Your task to perform on an android device: turn off data saver in the chrome app Image 0: 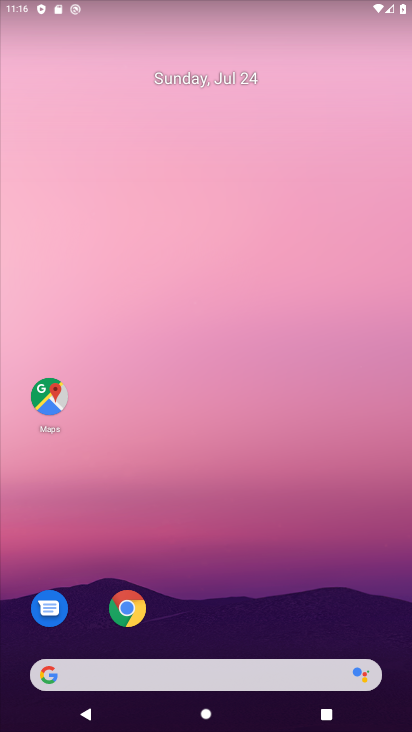
Step 0: click (135, 608)
Your task to perform on an android device: turn off data saver in the chrome app Image 1: 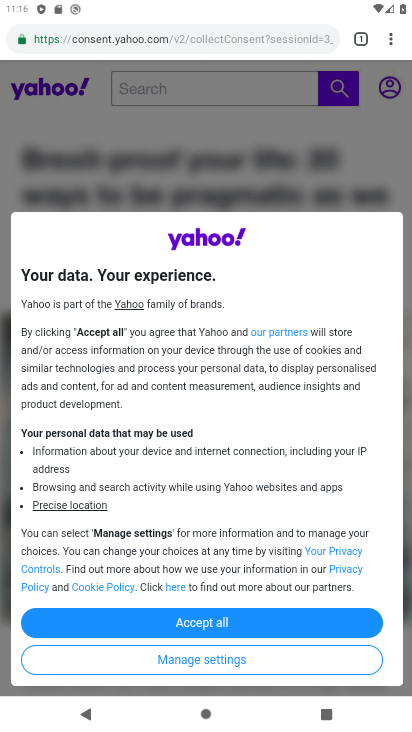
Step 1: click (391, 41)
Your task to perform on an android device: turn off data saver in the chrome app Image 2: 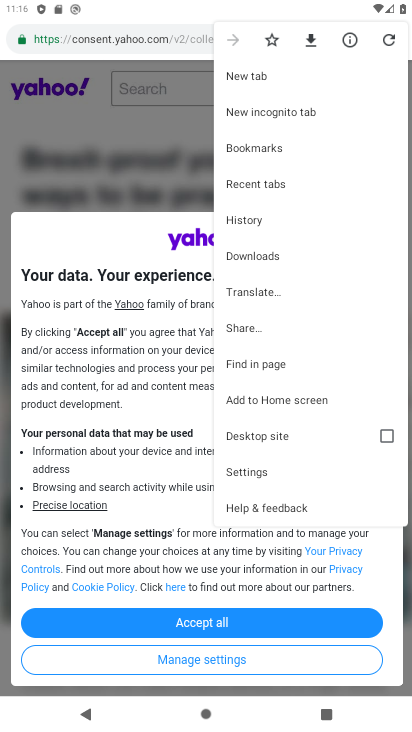
Step 2: click (258, 472)
Your task to perform on an android device: turn off data saver in the chrome app Image 3: 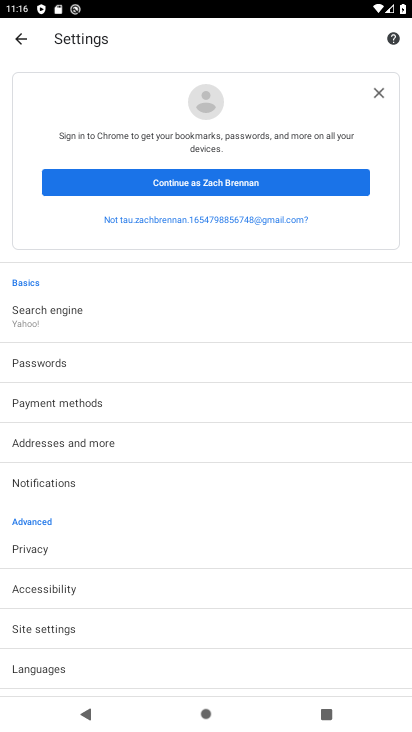
Step 3: drag from (146, 645) to (173, 317)
Your task to perform on an android device: turn off data saver in the chrome app Image 4: 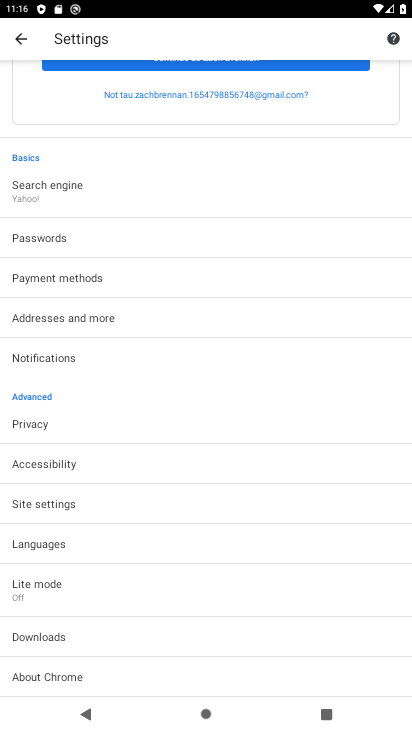
Step 4: click (42, 591)
Your task to perform on an android device: turn off data saver in the chrome app Image 5: 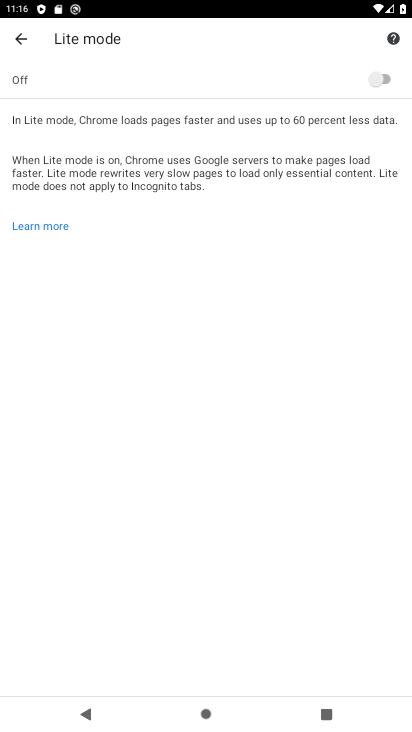
Step 5: task complete